Your task to perform on an android device: Open Youtube and go to "Your channel" Image 0: 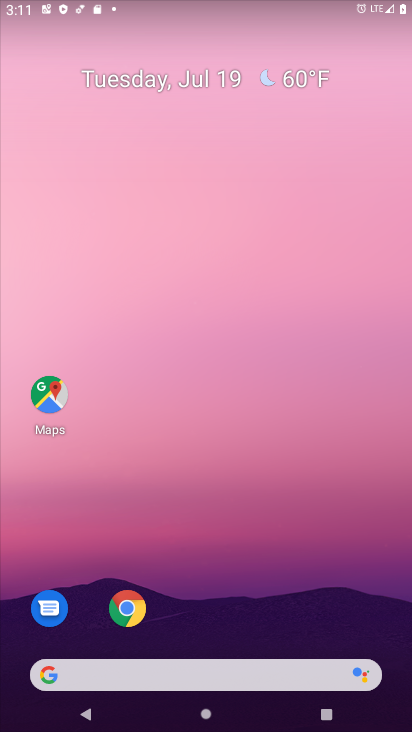
Step 0: drag from (311, 430) to (364, 3)
Your task to perform on an android device: Open Youtube and go to "Your channel" Image 1: 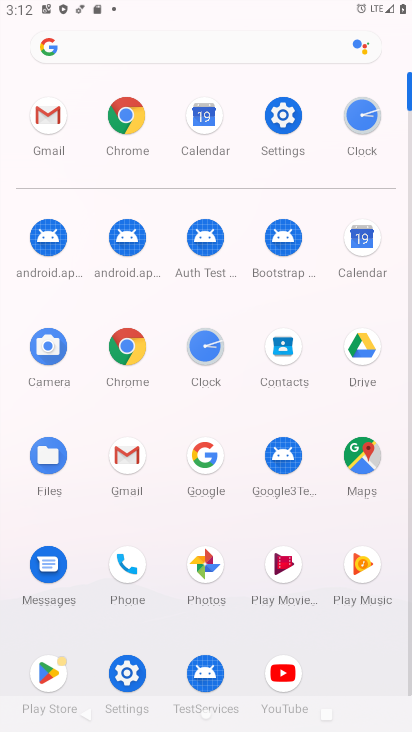
Step 1: click (279, 680)
Your task to perform on an android device: Open Youtube and go to "Your channel" Image 2: 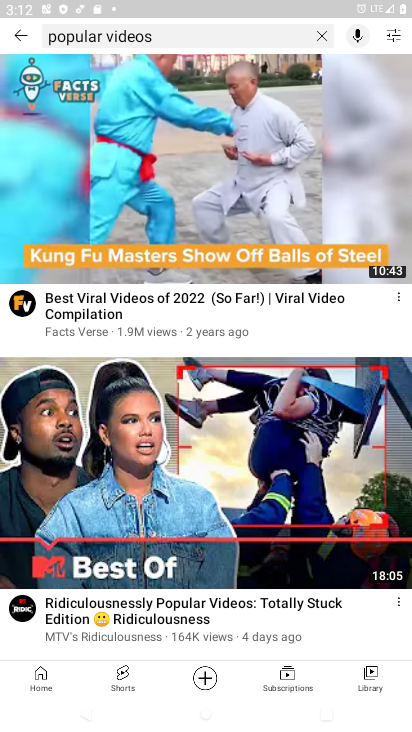
Step 2: click (362, 677)
Your task to perform on an android device: Open Youtube and go to "Your channel" Image 3: 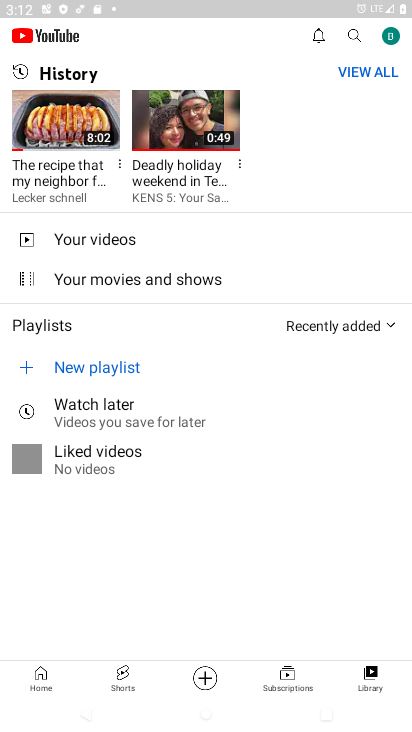
Step 3: click (383, 33)
Your task to perform on an android device: Open Youtube and go to "Your channel" Image 4: 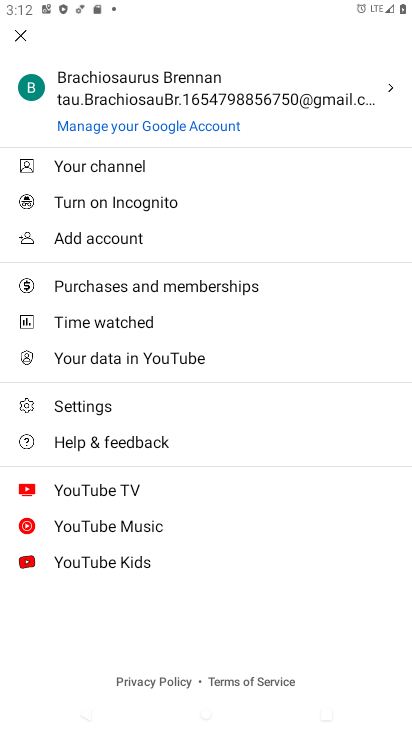
Step 4: click (110, 165)
Your task to perform on an android device: Open Youtube and go to "Your channel" Image 5: 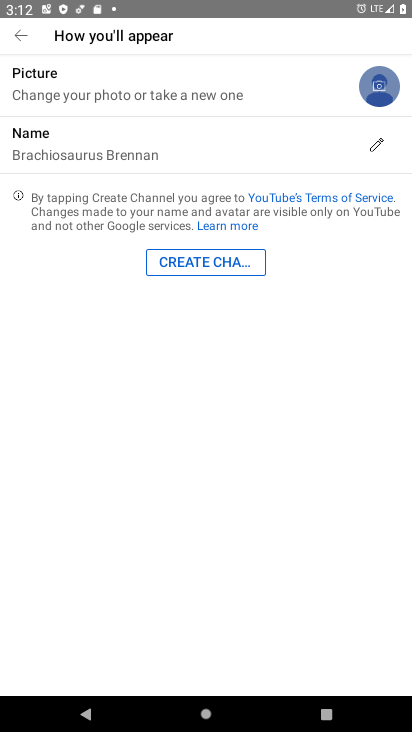
Step 5: task complete